Your task to perform on an android device: change the upload size in google photos Image 0: 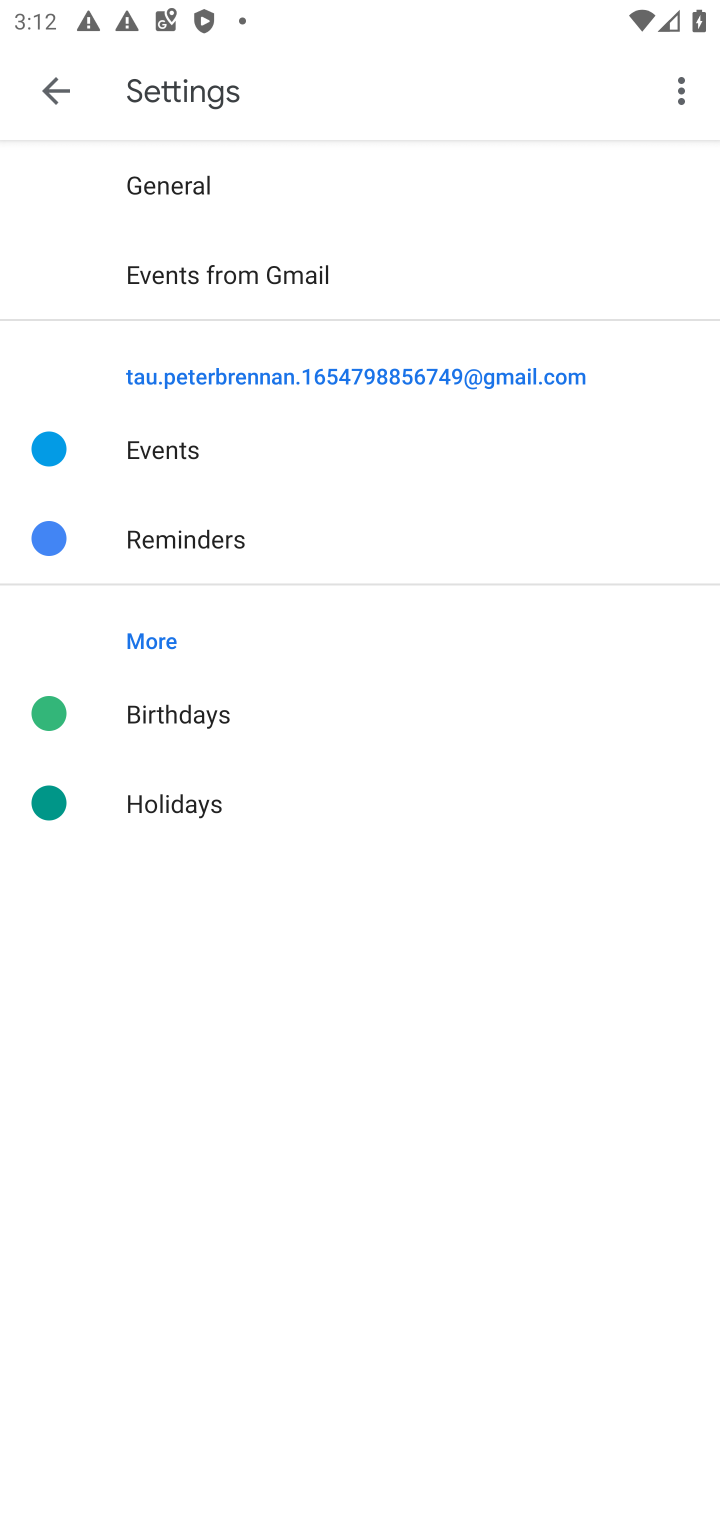
Step 0: press back button
Your task to perform on an android device: change the upload size in google photos Image 1: 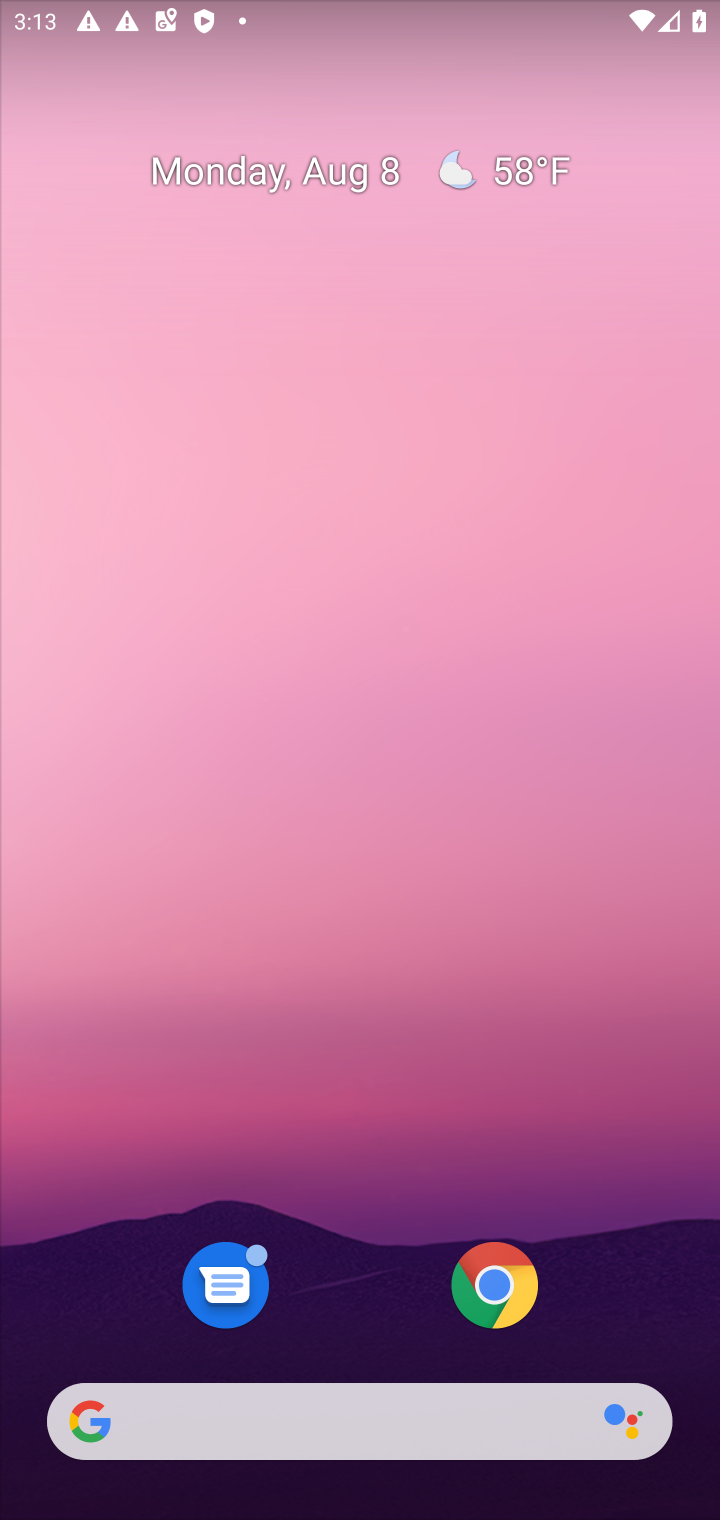
Step 1: drag from (383, 1339) to (668, 226)
Your task to perform on an android device: change the upload size in google photos Image 2: 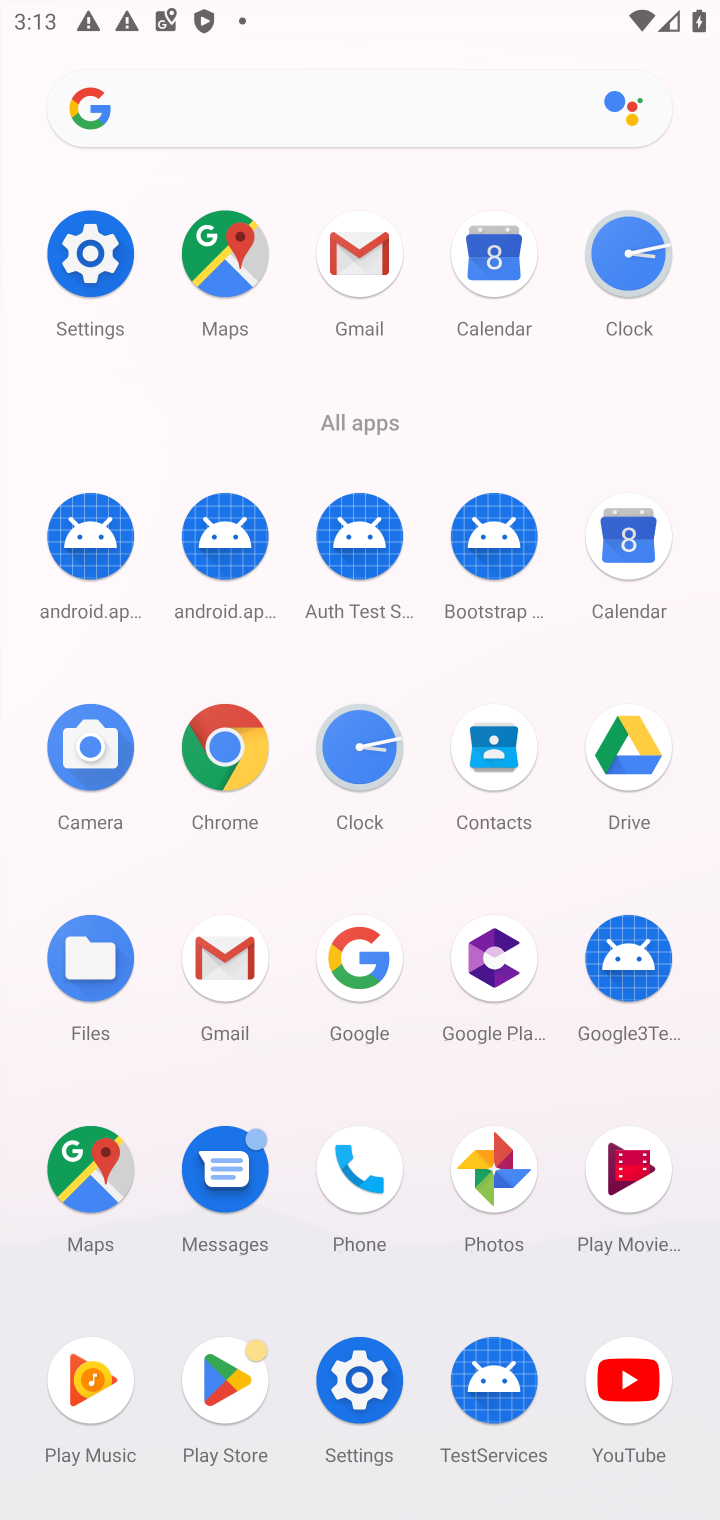
Step 2: click (492, 1164)
Your task to perform on an android device: change the upload size in google photos Image 3: 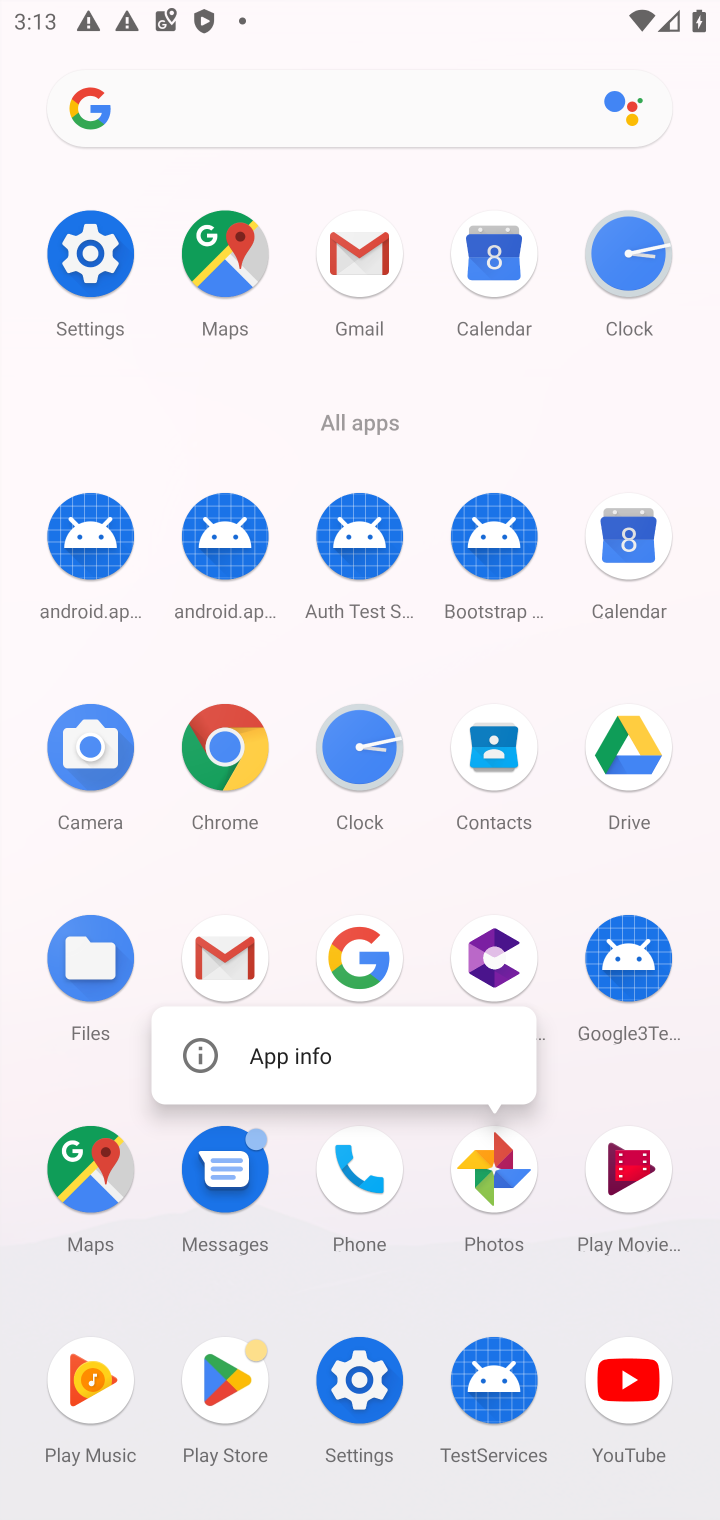
Step 3: click (524, 1186)
Your task to perform on an android device: change the upload size in google photos Image 4: 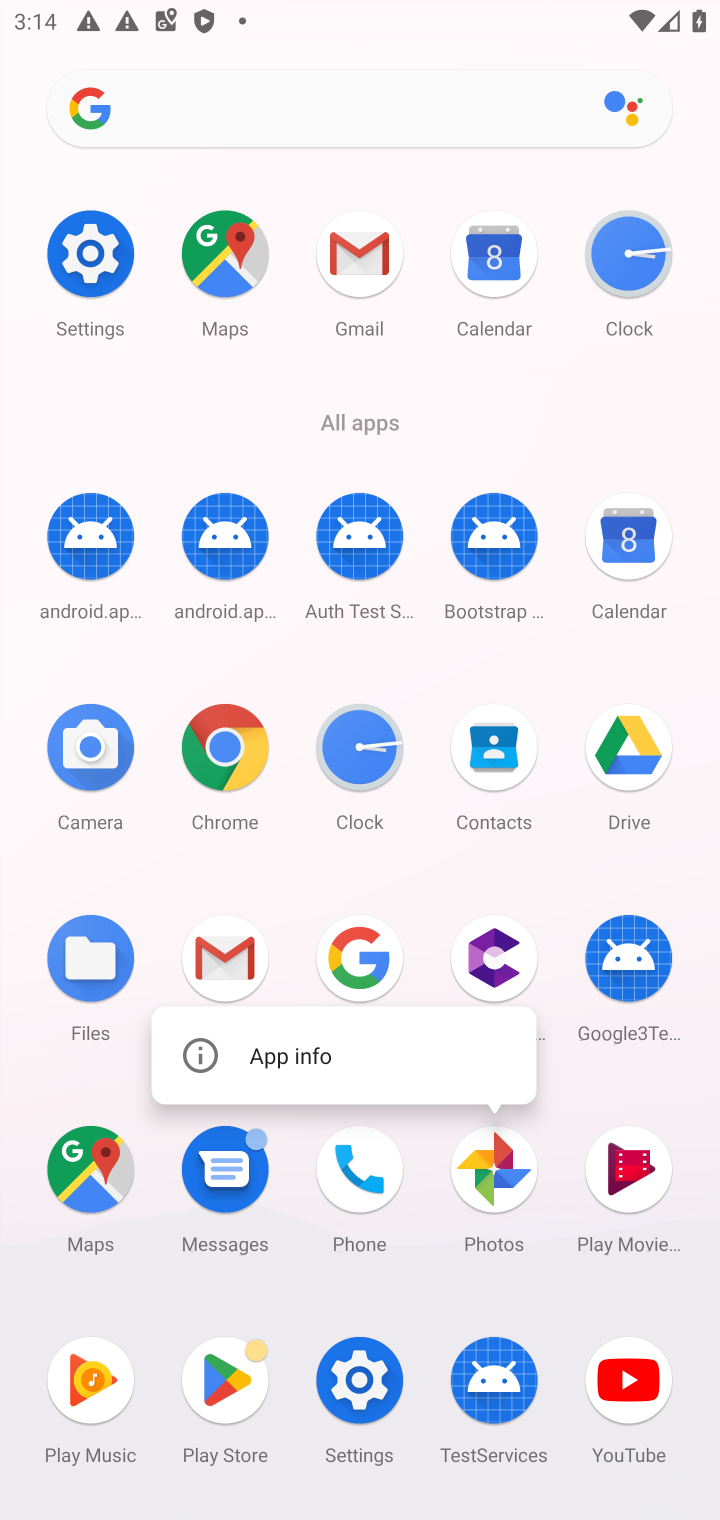
Step 4: click (498, 1180)
Your task to perform on an android device: change the upload size in google photos Image 5: 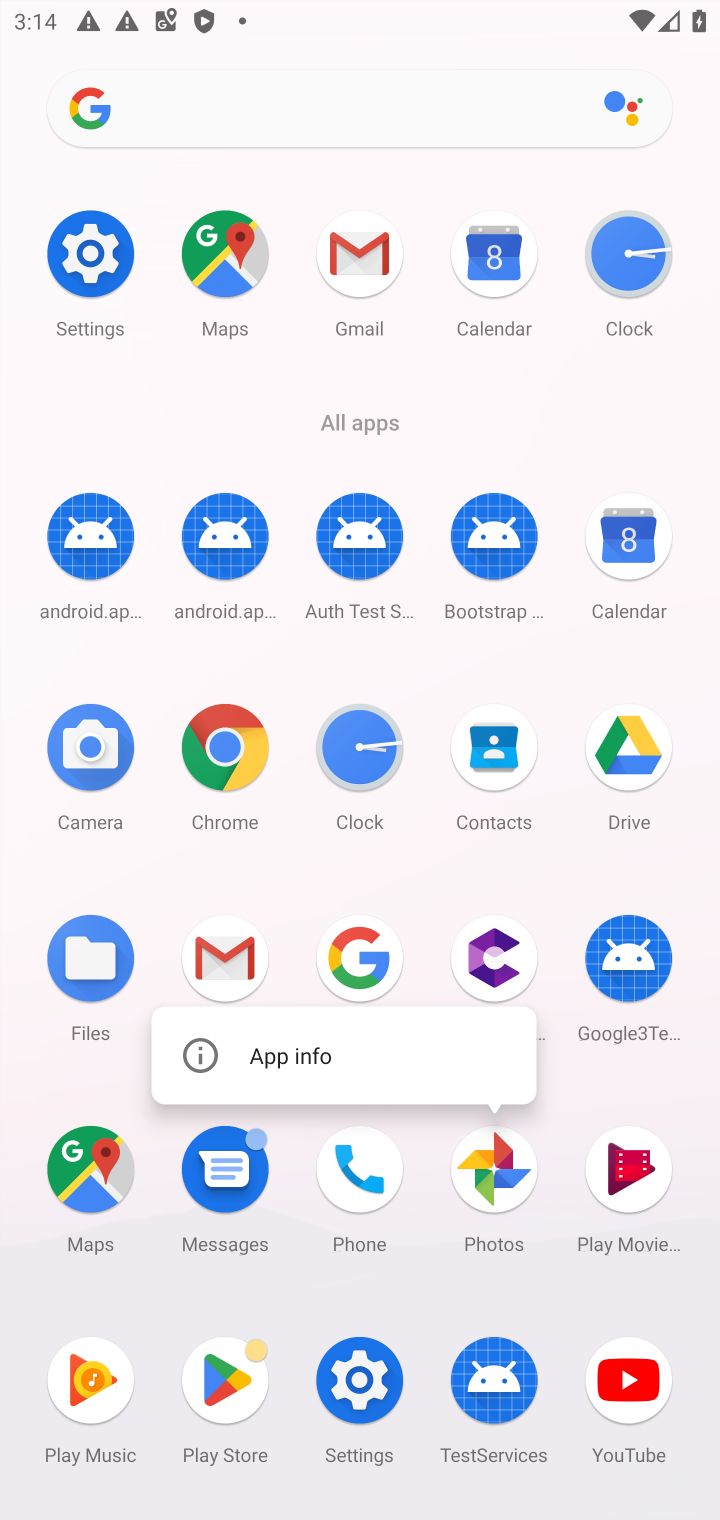
Step 5: click (498, 1179)
Your task to perform on an android device: change the upload size in google photos Image 6: 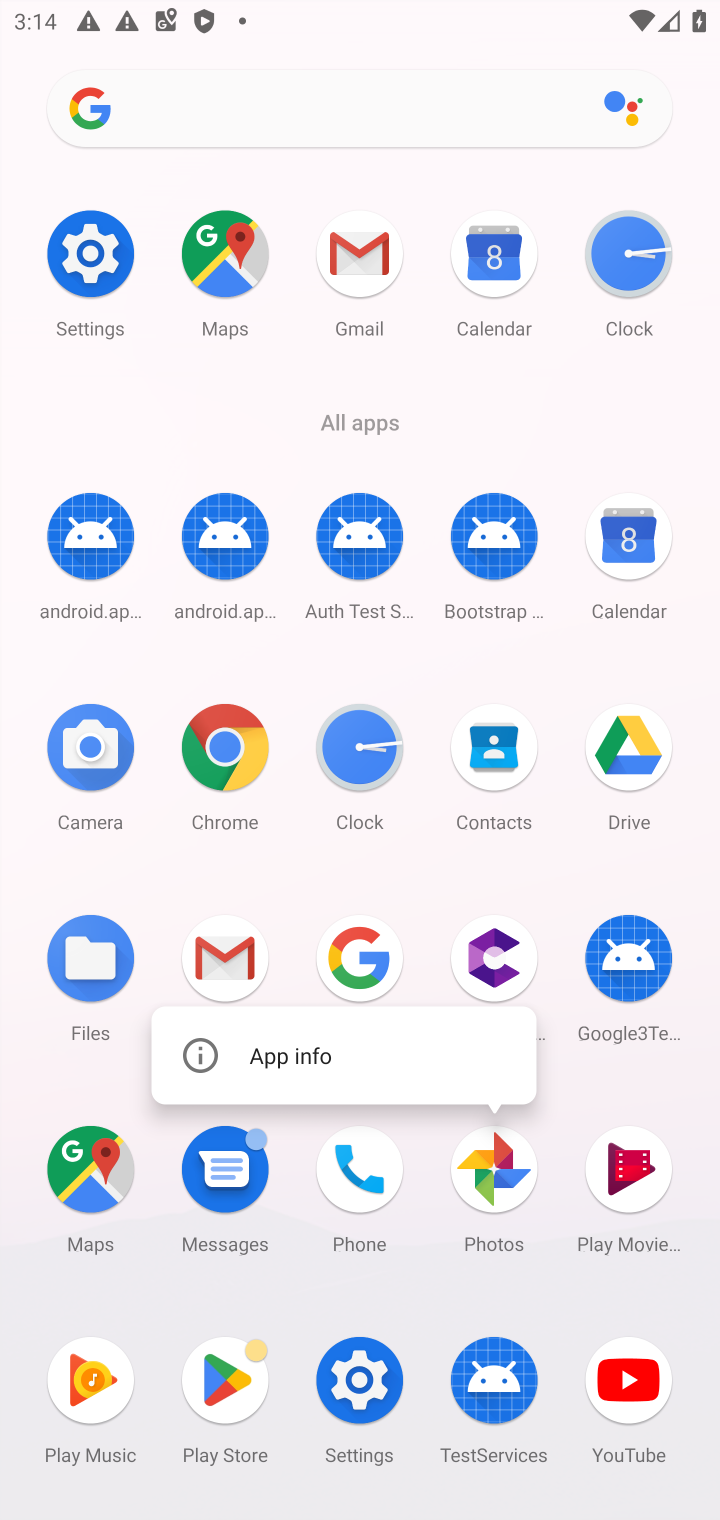
Step 6: click (490, 1164)
Your task to perform on an android device: change the upload size in google photos Image 7: 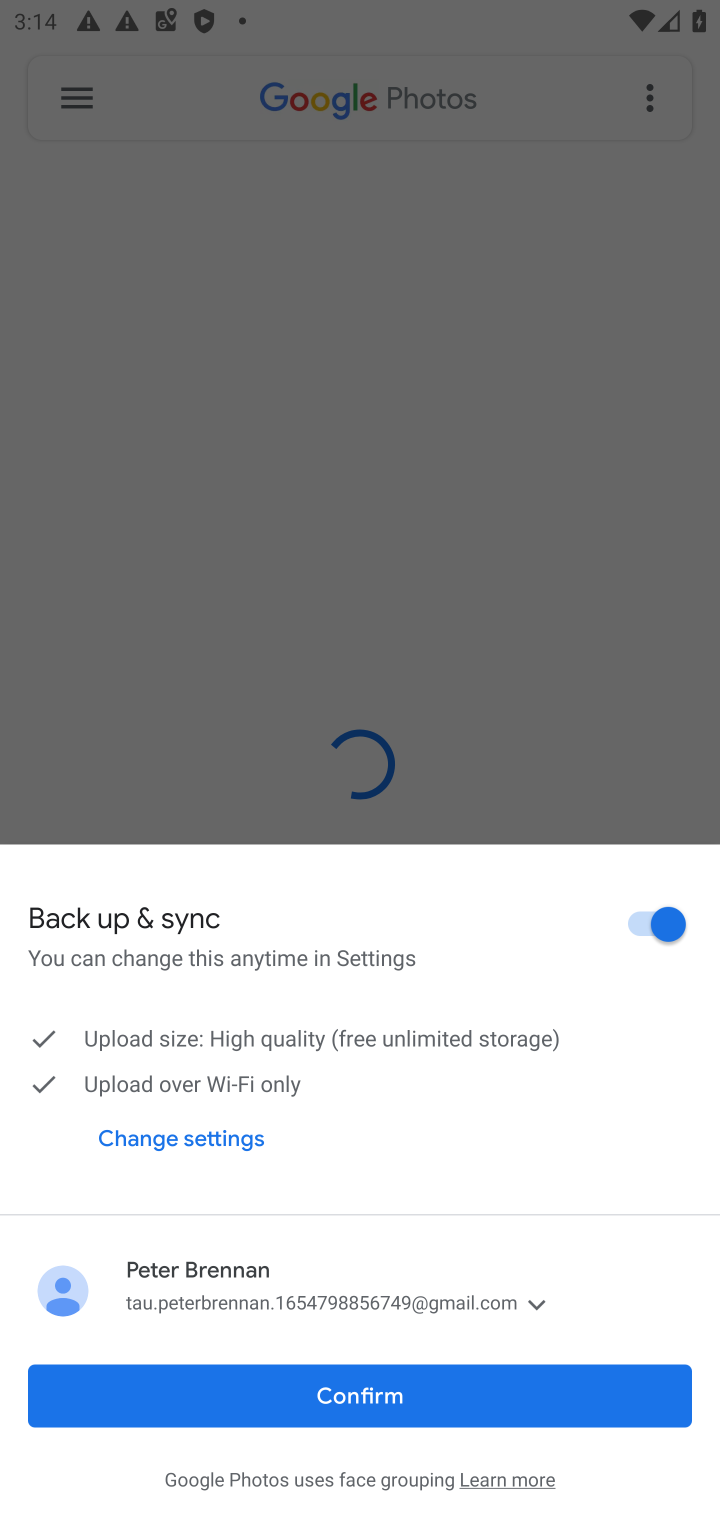
Step 7: click (382, 1393)
Your task to perform on an android device: change the upload size in google photos Image 8: 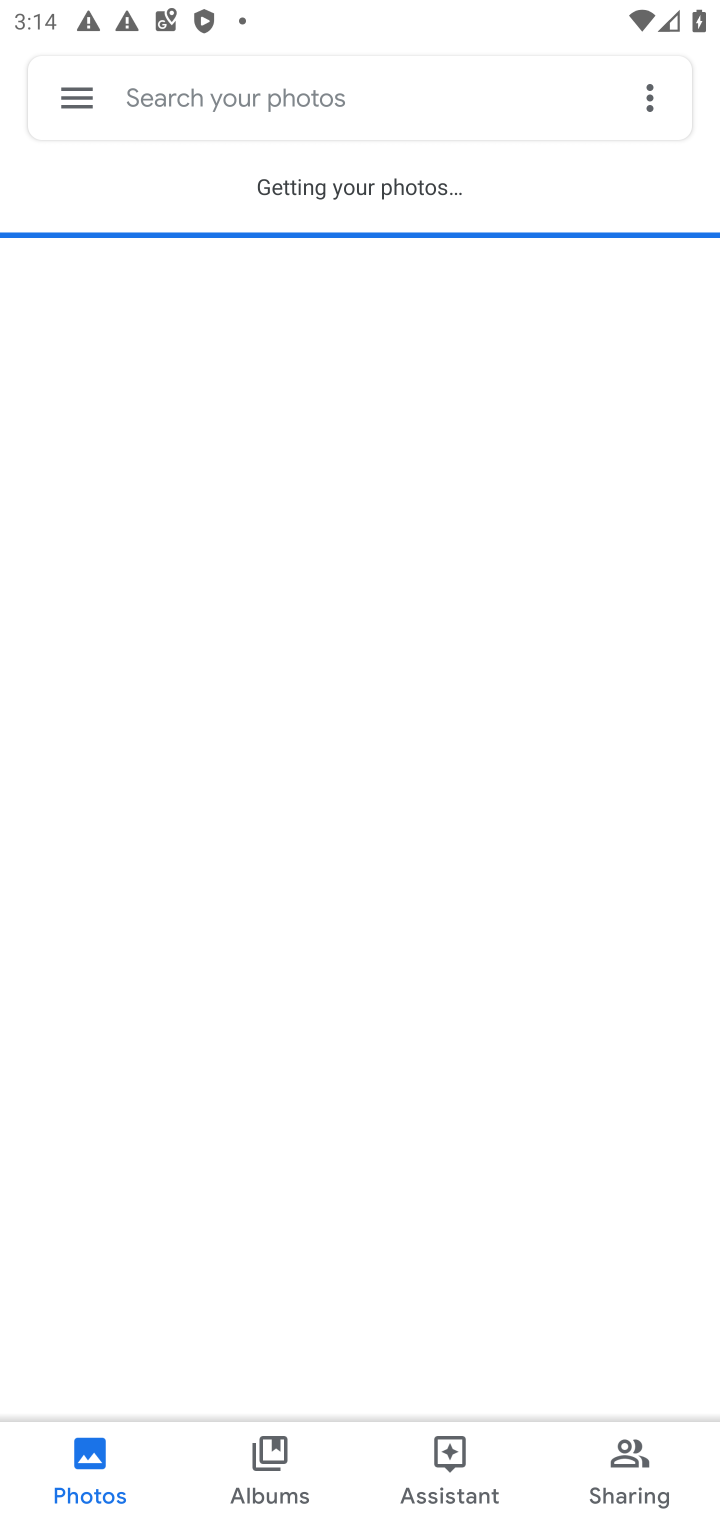
Step 8: click (69, 110)
Your task to perform on an android device: change the upload size in google photos Image 9: 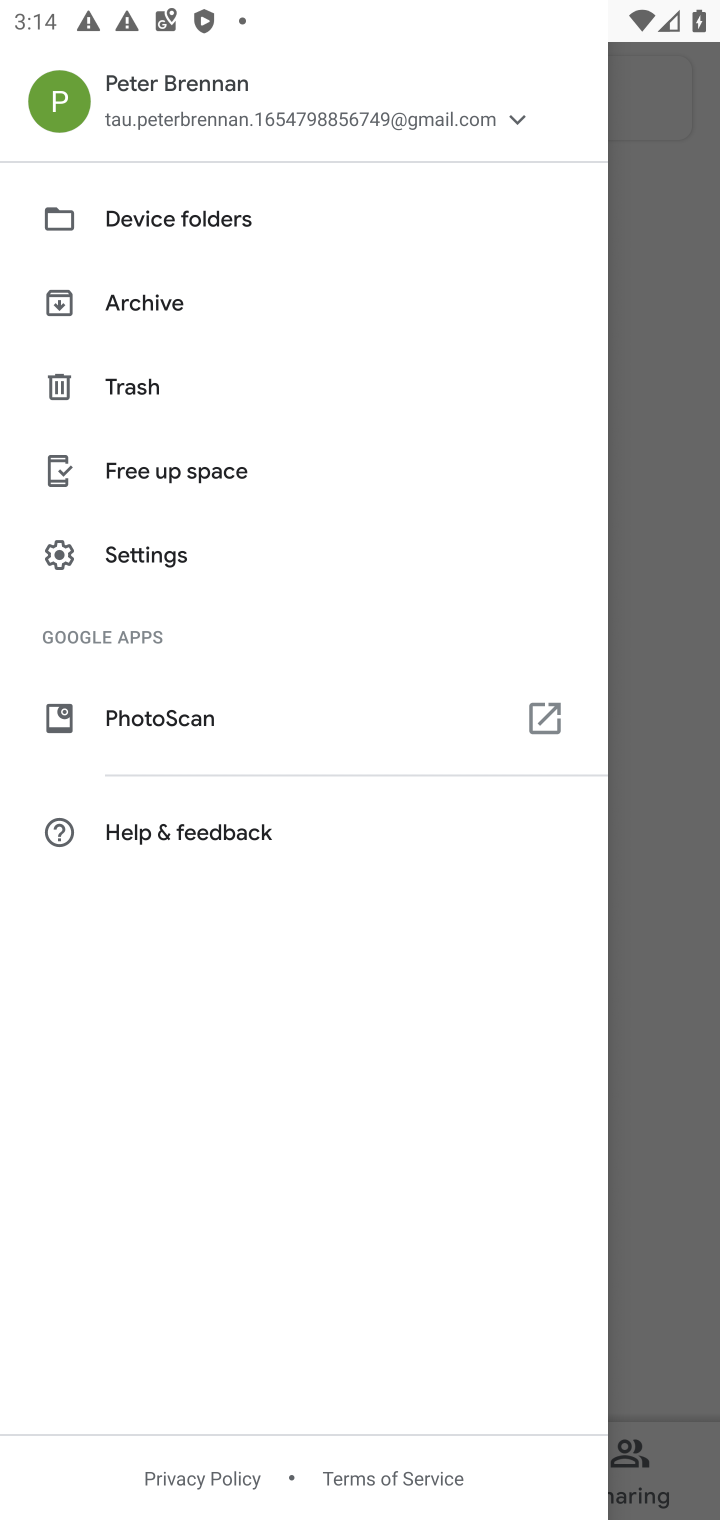
Step 9: click (150, 571)
Your task to perform on an android device: change the upload size in google photos Image 10: 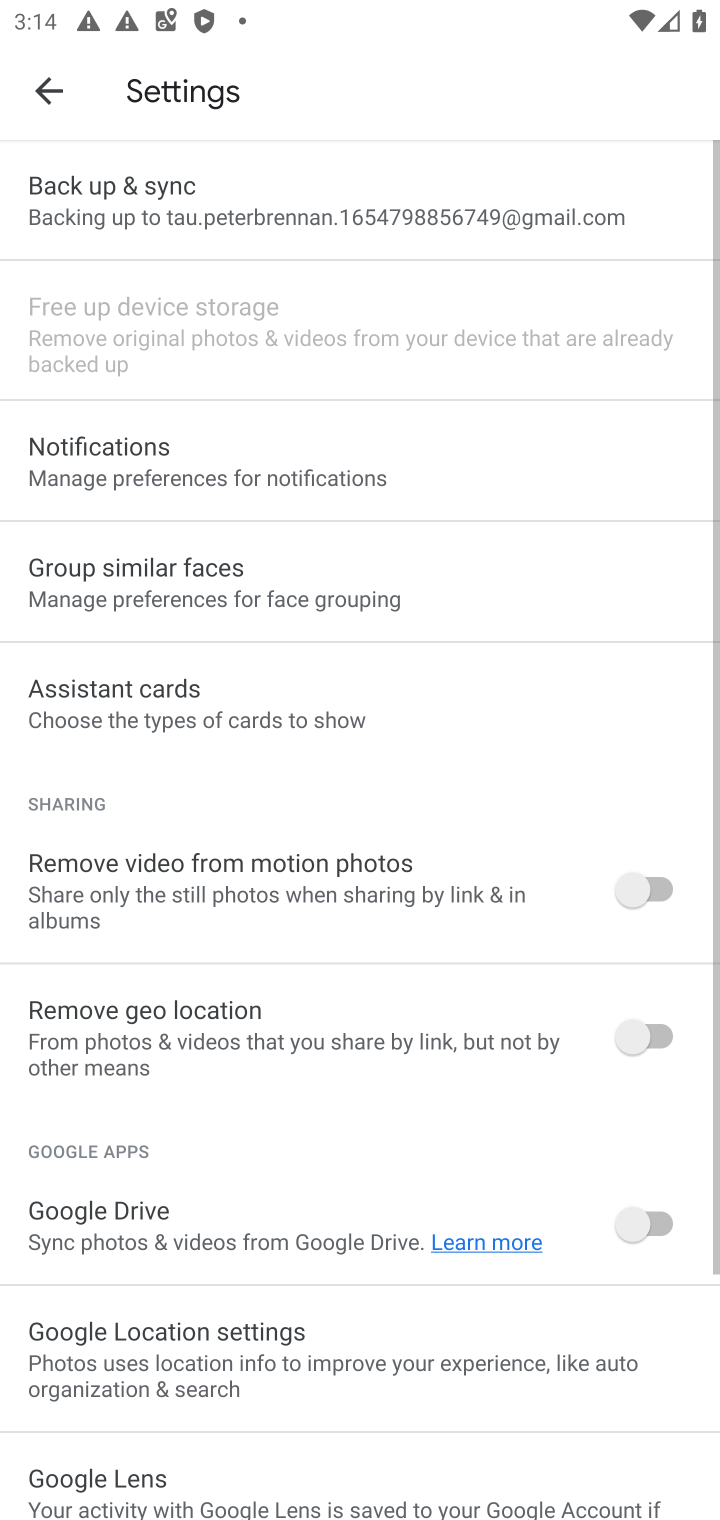
Step 10: click (182, 211)
Your task to perform on an android device: change the upload size in google photos Image 11: 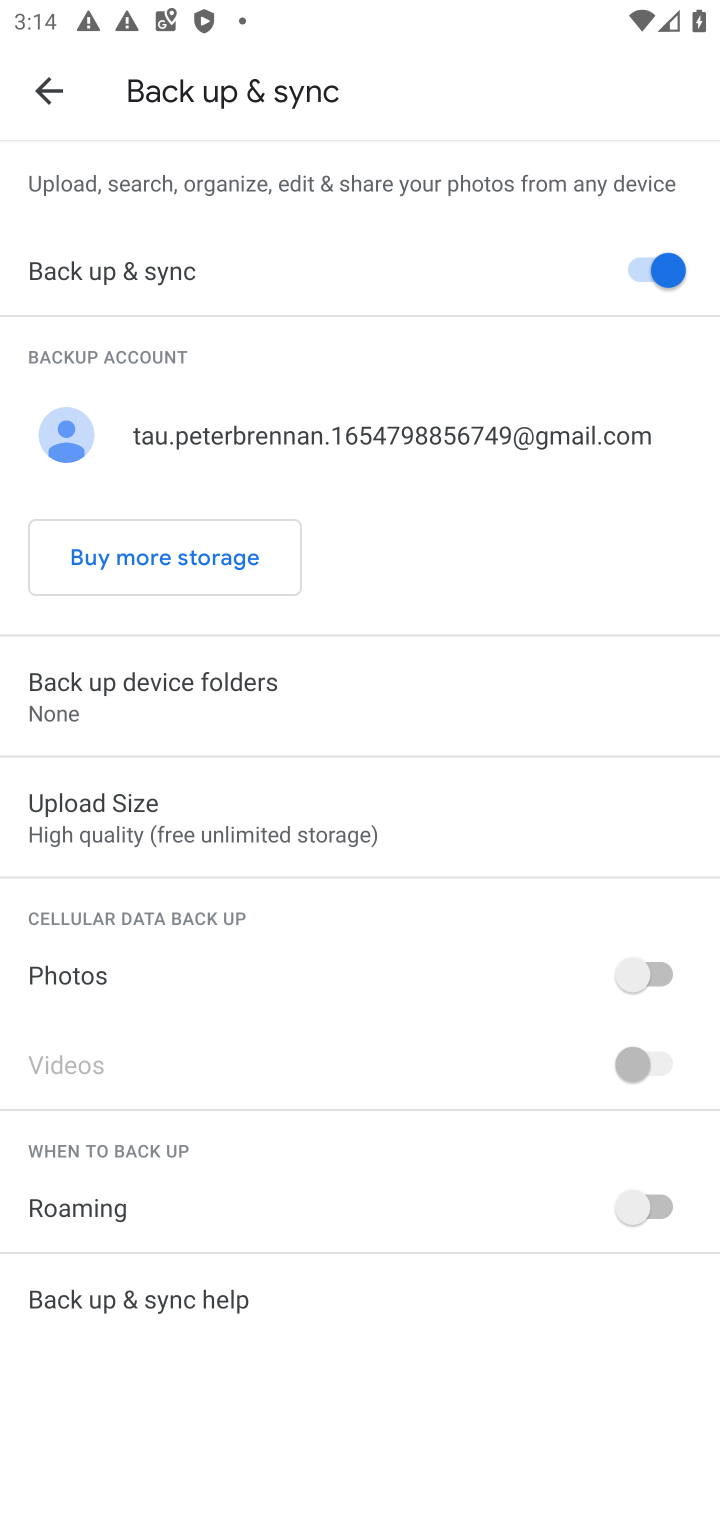
Step 11: click (205, 798)
Your task to perform on an android device: change the upload size in google photos Image 12: 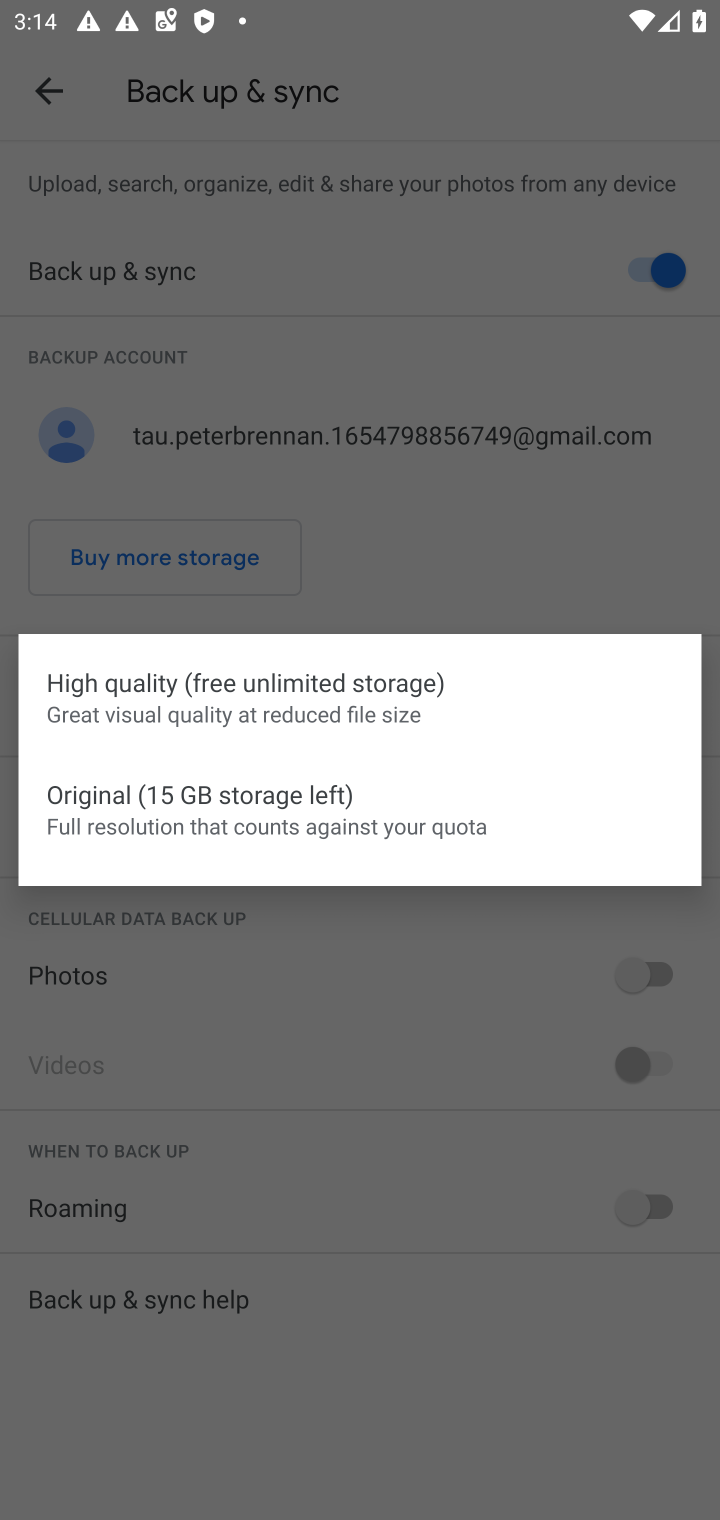
Step 12: click (192, 809)
Your task to perform on an android device: change the upload size in google photos Image 13: 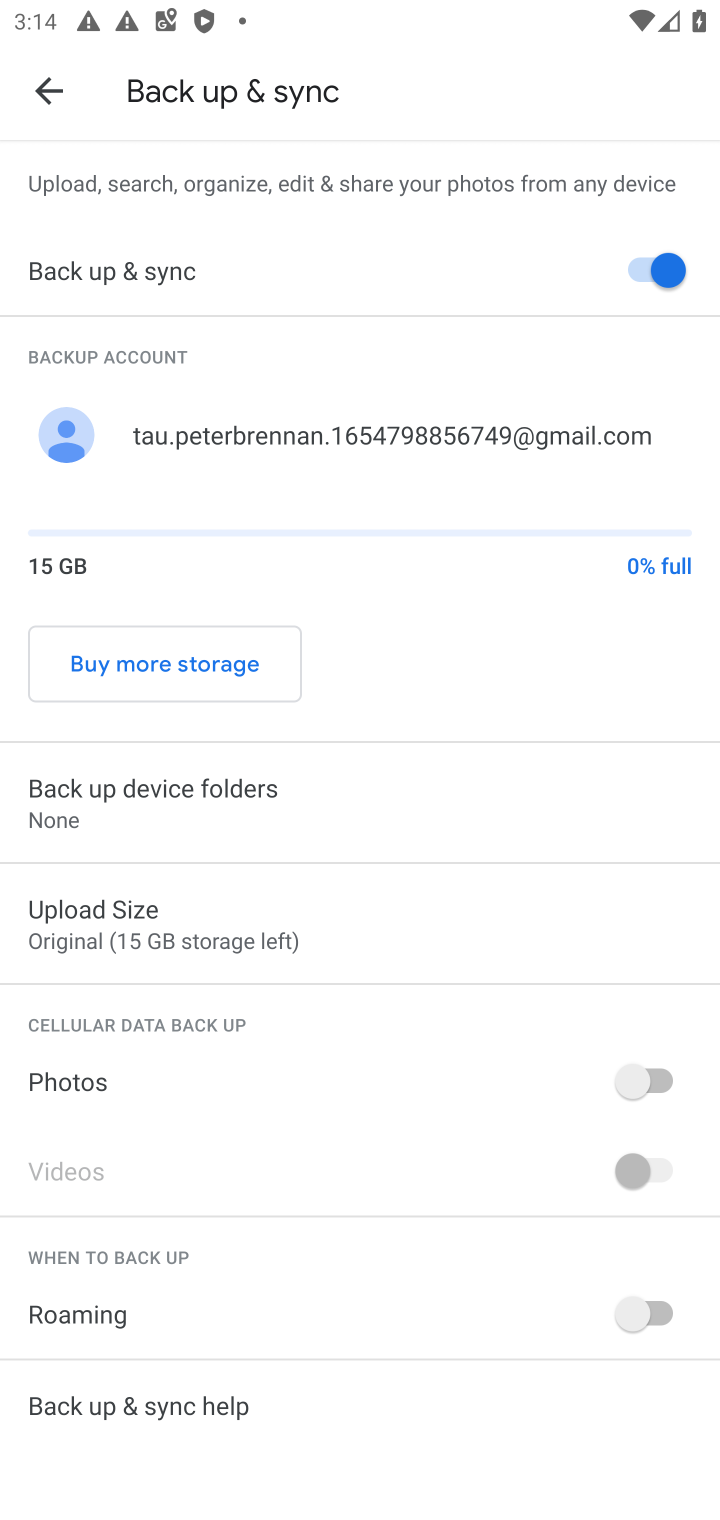
Step 13: task complete